Your task to perform on an android device: toggle location history Image 0: 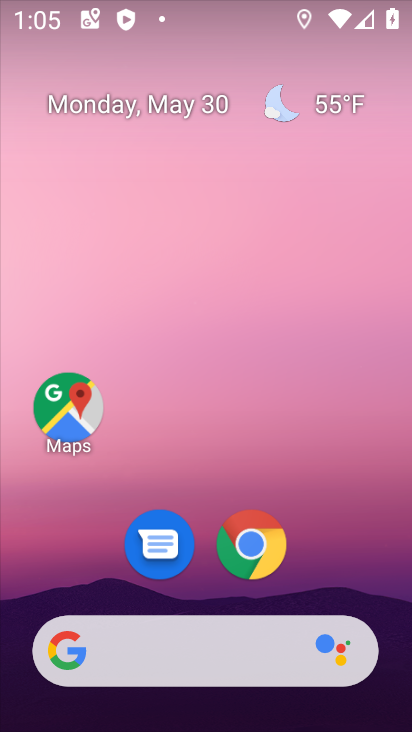
Step 0: drag from (337, 603) to (312, 162)
Your task to perform on an android device: toggle location history Image 1: 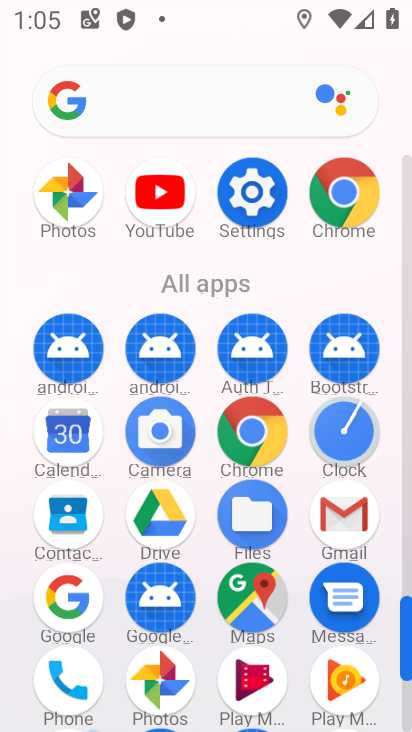
Step 1: click (257, 195)
Your task to perform on an android device: toggle location history Image 2: 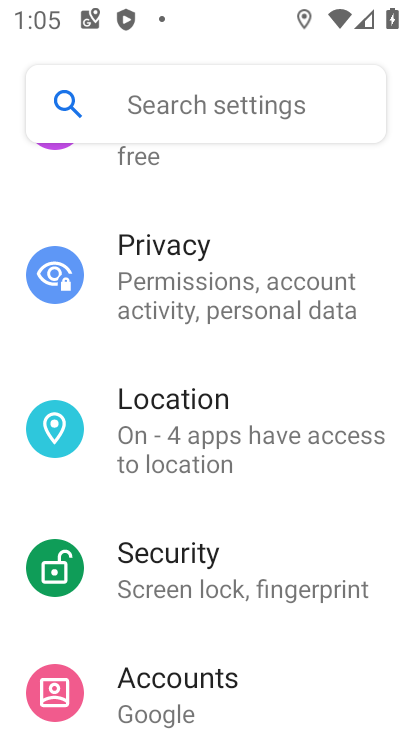
Step 2: click (201, 453)
Your task to perform on an android device: toggle location history Image 3: 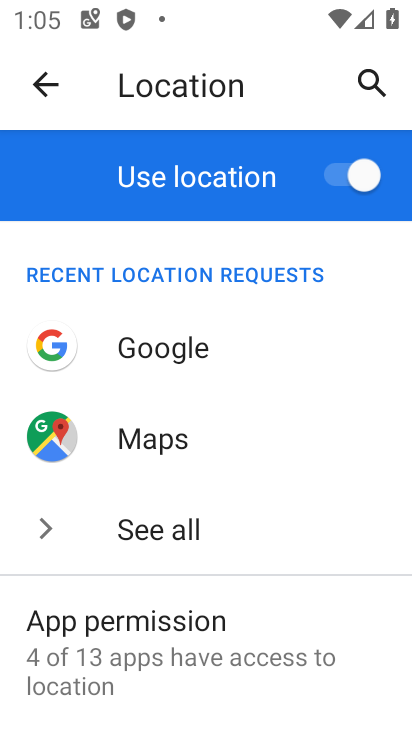
Step 3: drag from (248, 655) to (229, 286)
Your task to perform on an android device: toggle location history Image 4: 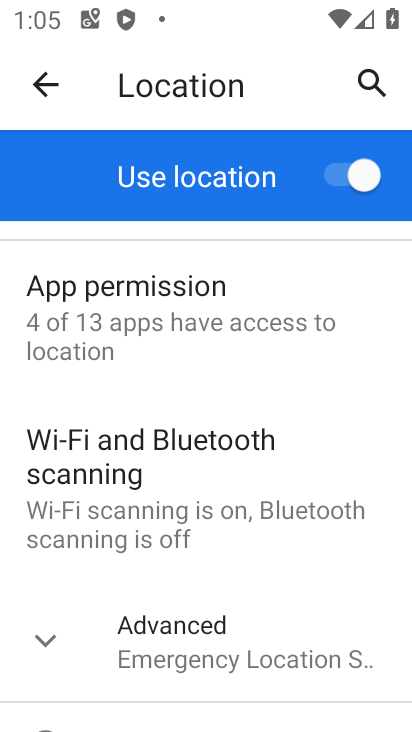
Step 4: click (184, 672)
Your task to perform on an android device: toggle location history Image 5: 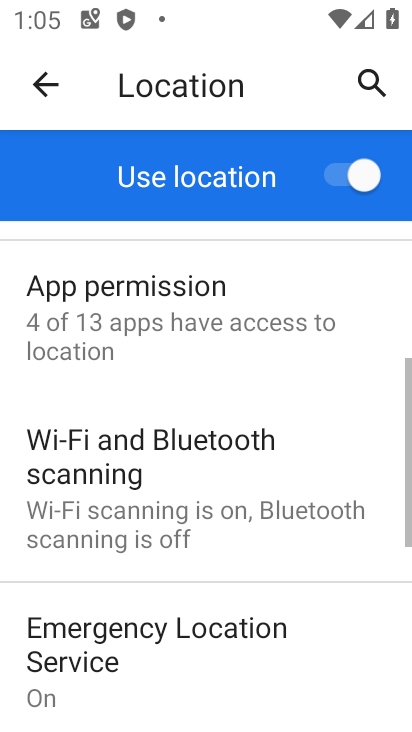
Step 5: drag from (183, 672) to (170, 349)
Your task to perform on an android device: toggle location history Image 6: 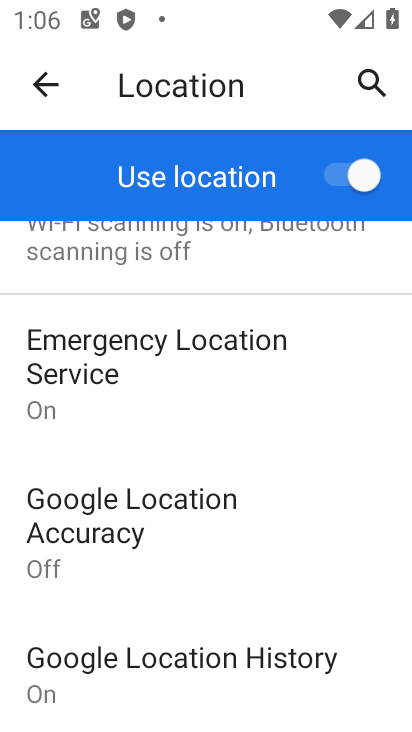
Step 6: click (201, 679)
Your task to perform on an android device: toggle location history Image 7: 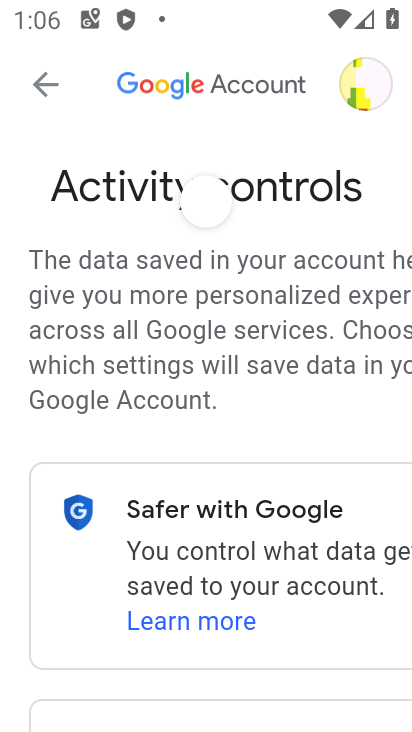
Step 7: drag from (330, 605) to (303, 153)
Your task to perform on an android device: toggle location history Image 8: 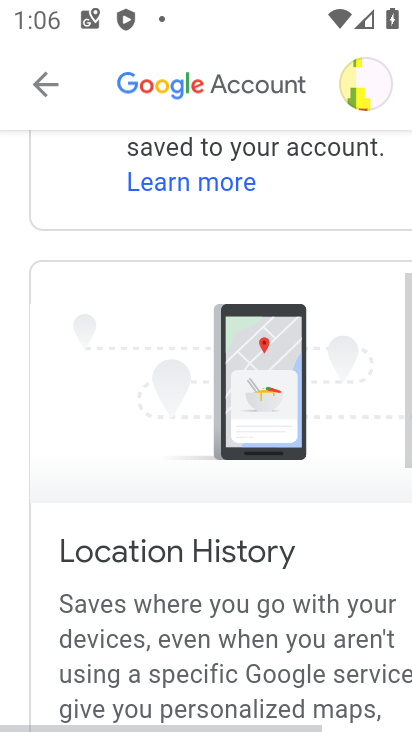
Step 8: drag from (312, 505) to (295, 119)
Your task to perform on an android device: toggle location history Image 9: 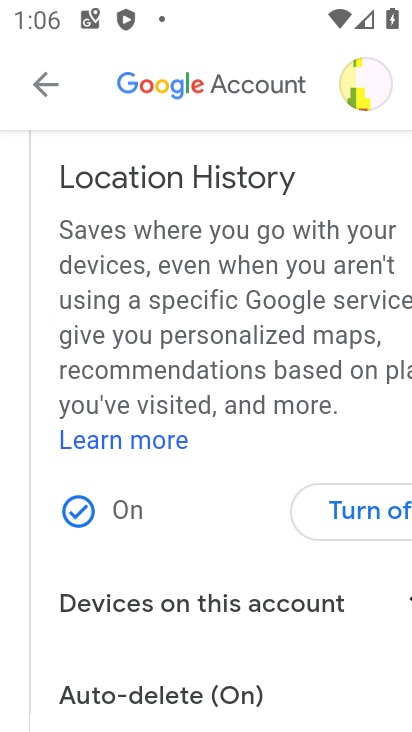
Step 9: click (324, 527)
Your task to perform on an android device: toggle location history Image 10: 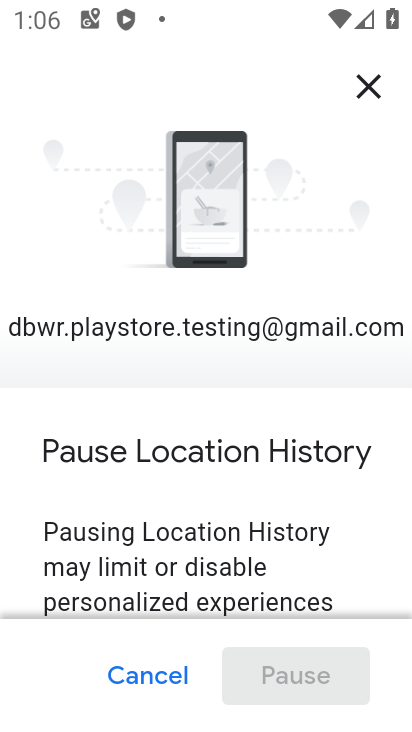
Step 10: drag from (296, 603) to (289, 141)
Your task to perform on an android device: toggle location history Image 11: 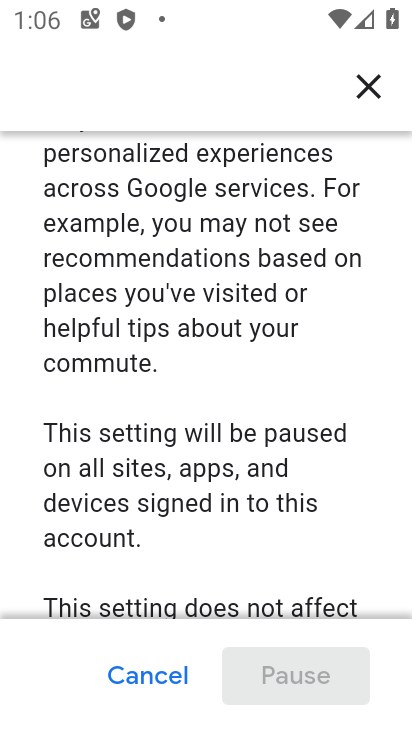
Step 11: drag from (330, 564) to (309, 77)
Your task to perform on an android device: toggle location history Image 12: 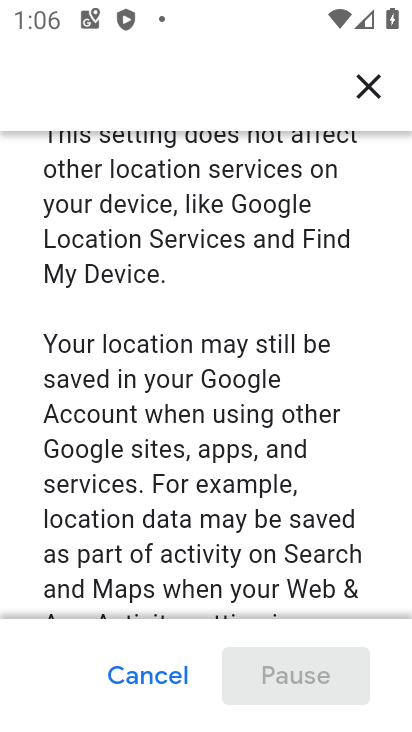
Step 12: drag from (326, 562) to (347, 168)
Your task to perform on an android device: toggle location history Image 13: 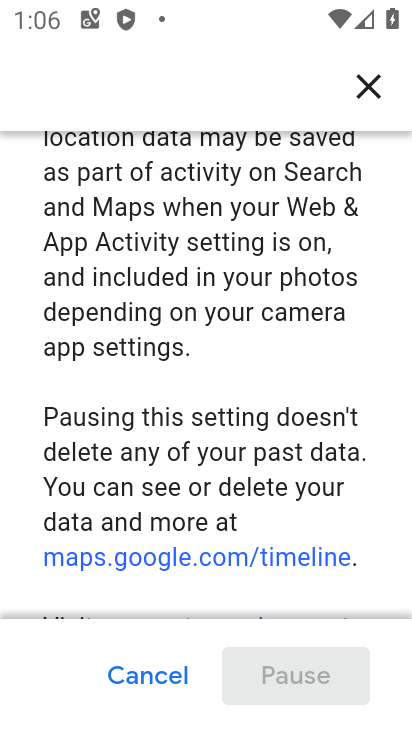
Step 13: drag from (315, 631) to (342, 190)
Your task to perform on an android device: toggle location history Image 14: 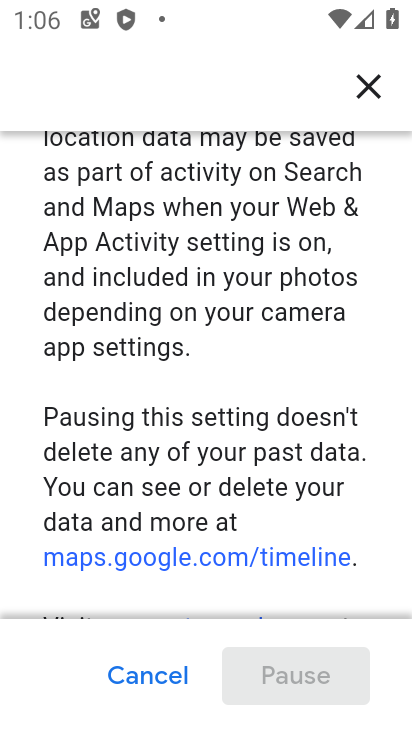
Step 14: drag from (305, 553) to (361, 133)
Your task to perform on an android device: toggle location history Image 15: 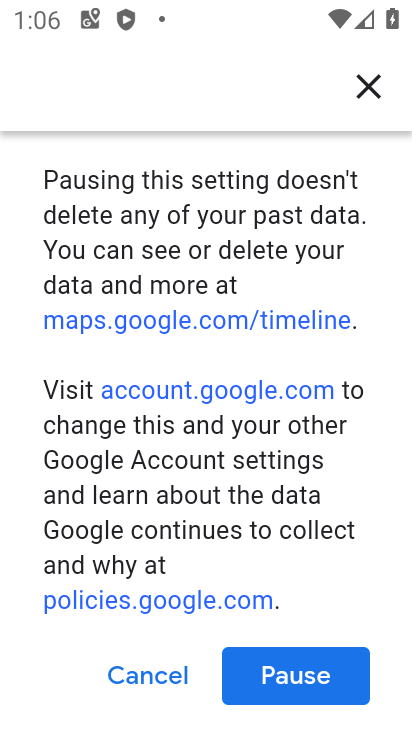
Step 15: click (344, 660)
Your task to perform on an android device: toggle location history Image 16: 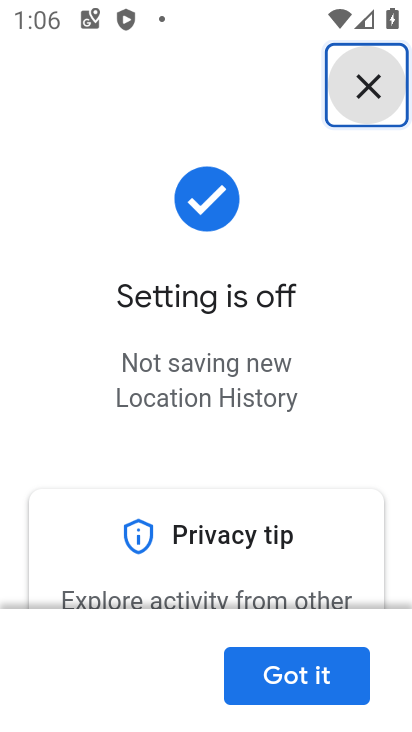
Step 16: click (362, 668)
Your task to perform on an android device: toggle location history Image 17: 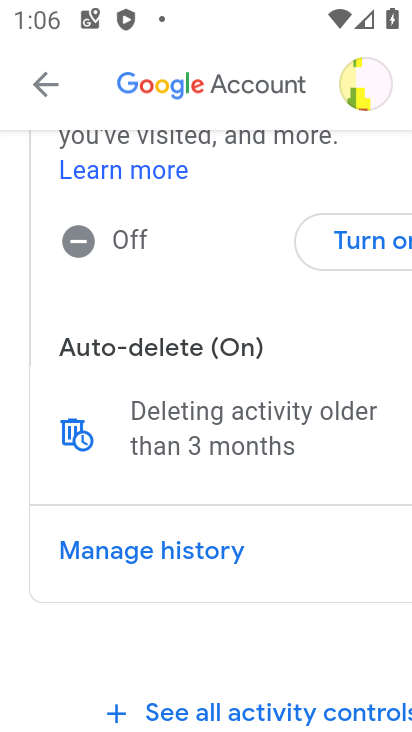
Step 17: task complete